Your task to perform on an android device: When is my next appointment? Image 0: 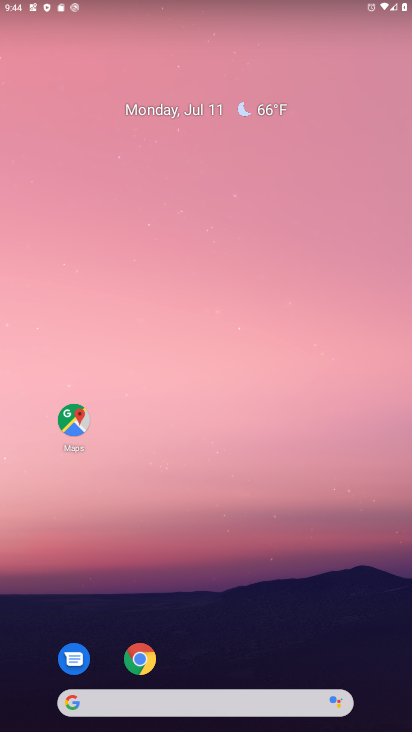
Step 0: drag from (346, 629) to (322, 132)
Your task to perform on an android device: When is my next appointment? Image 1: 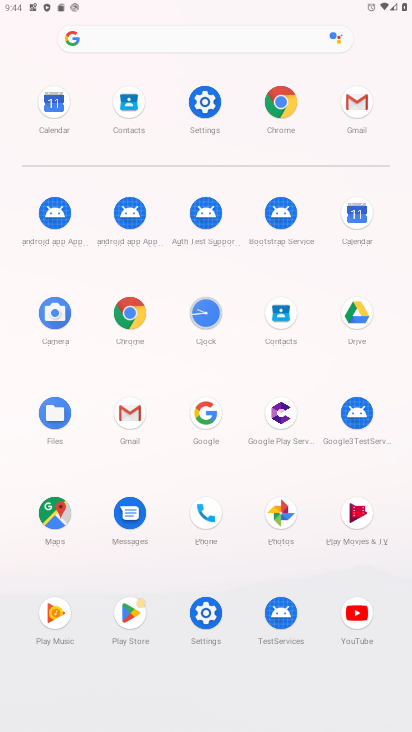
Step 1: click (356, 222)
Your task to perform on an android device: When is my next appointment? Image 2: 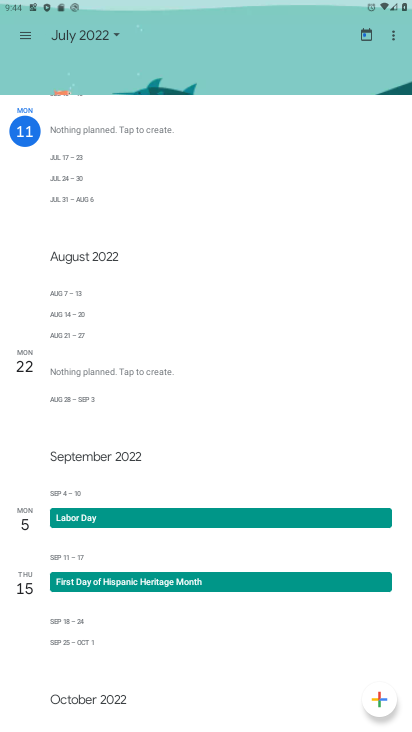
Step 2: task complete